Your task to perform on an android device: turn on data saver in the chrome app Image 0: 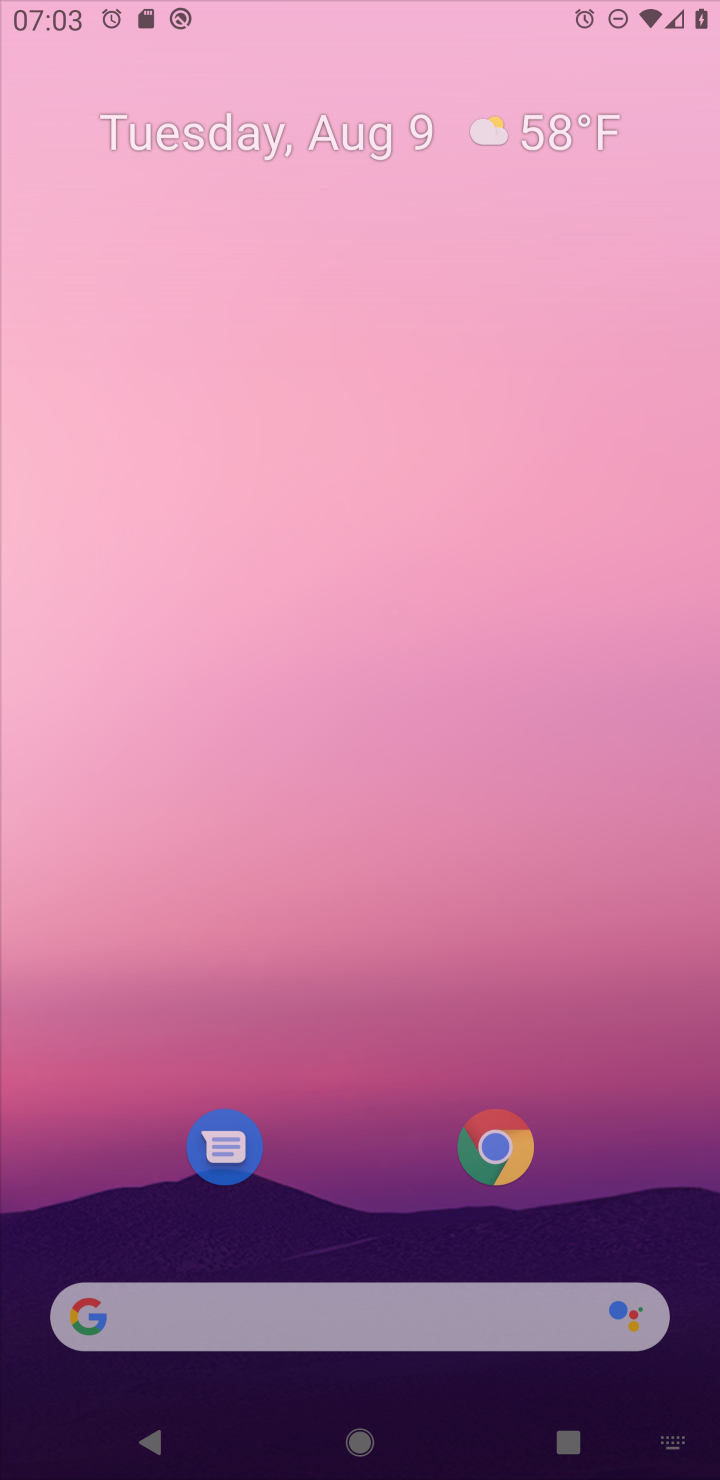
Step 0: press home button
Your task to perform on an android device: turn on data saver in the chrome app Image 1: 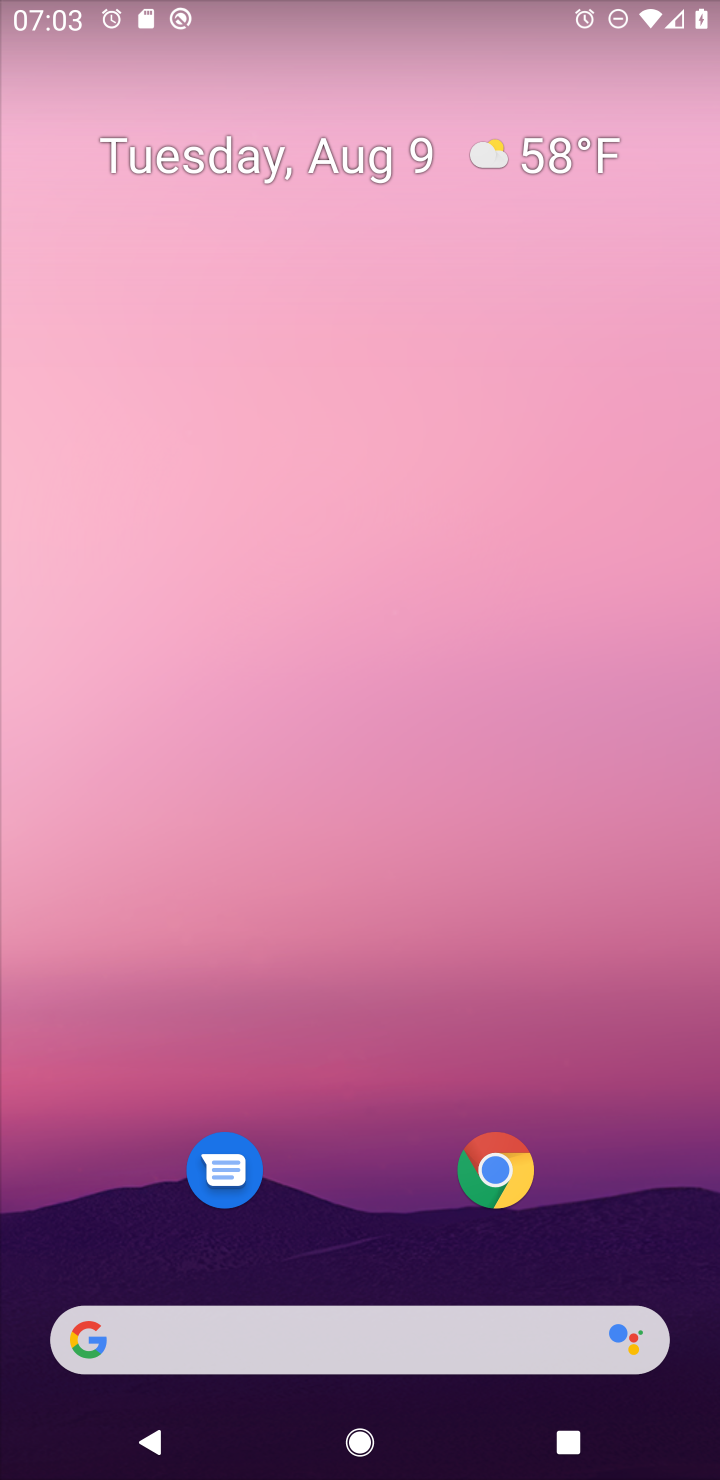
Step 1: click (498, 1195)
Your task to perform on an android device: turn on data saver in the chrome app Image 2: 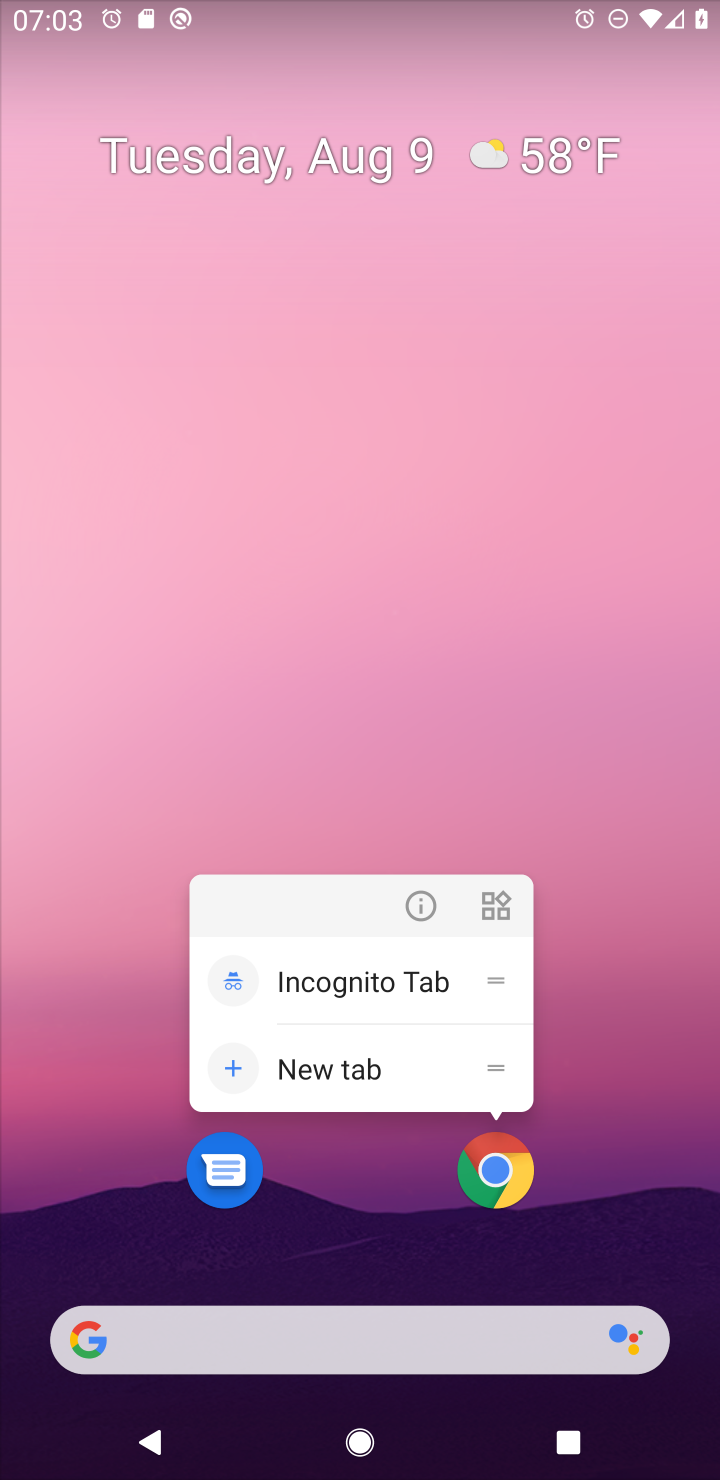
Step 2: click (485, 1172)
Your task to perform on an android device: turn on data saver in the chrome app Image 3: 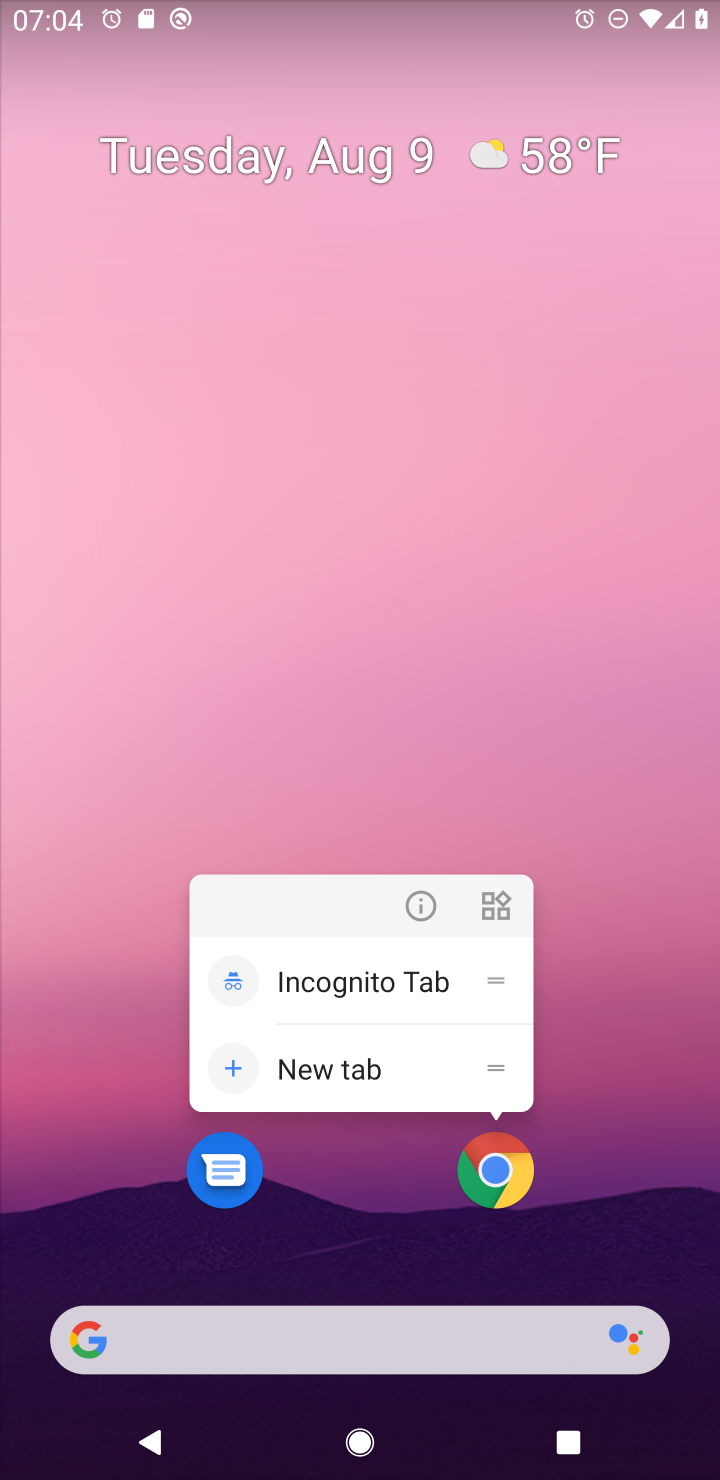
Step 3: click (491, 1173)
Your task to perform on an android device: turn on data saver in the chrome app Image 4: 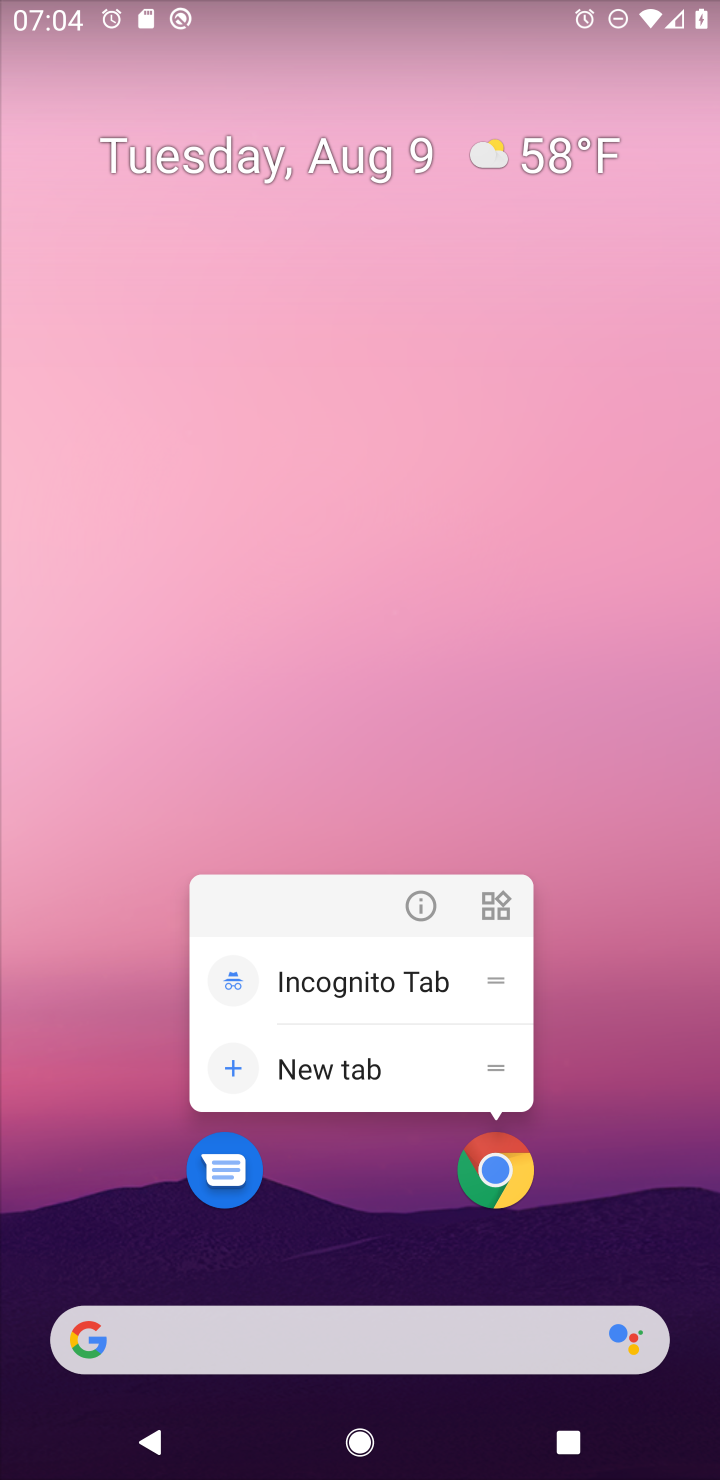
Step 4: click (491, 1173)
Your task to perform on an android device: turn on data saver in the chrome app Image 5: 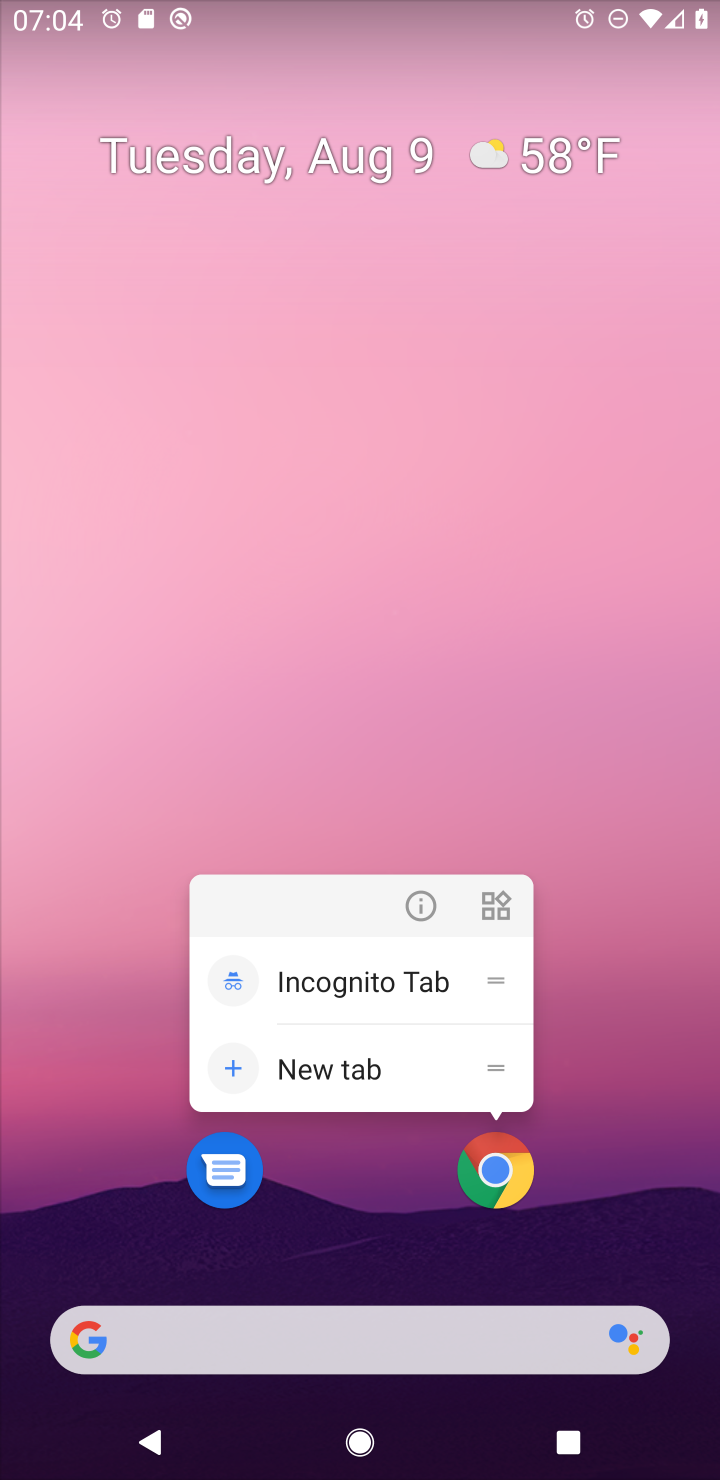
Step 5: click (491, 1184)
Your task to perform on an android device: turn on data saver in the chrome app Image 6: 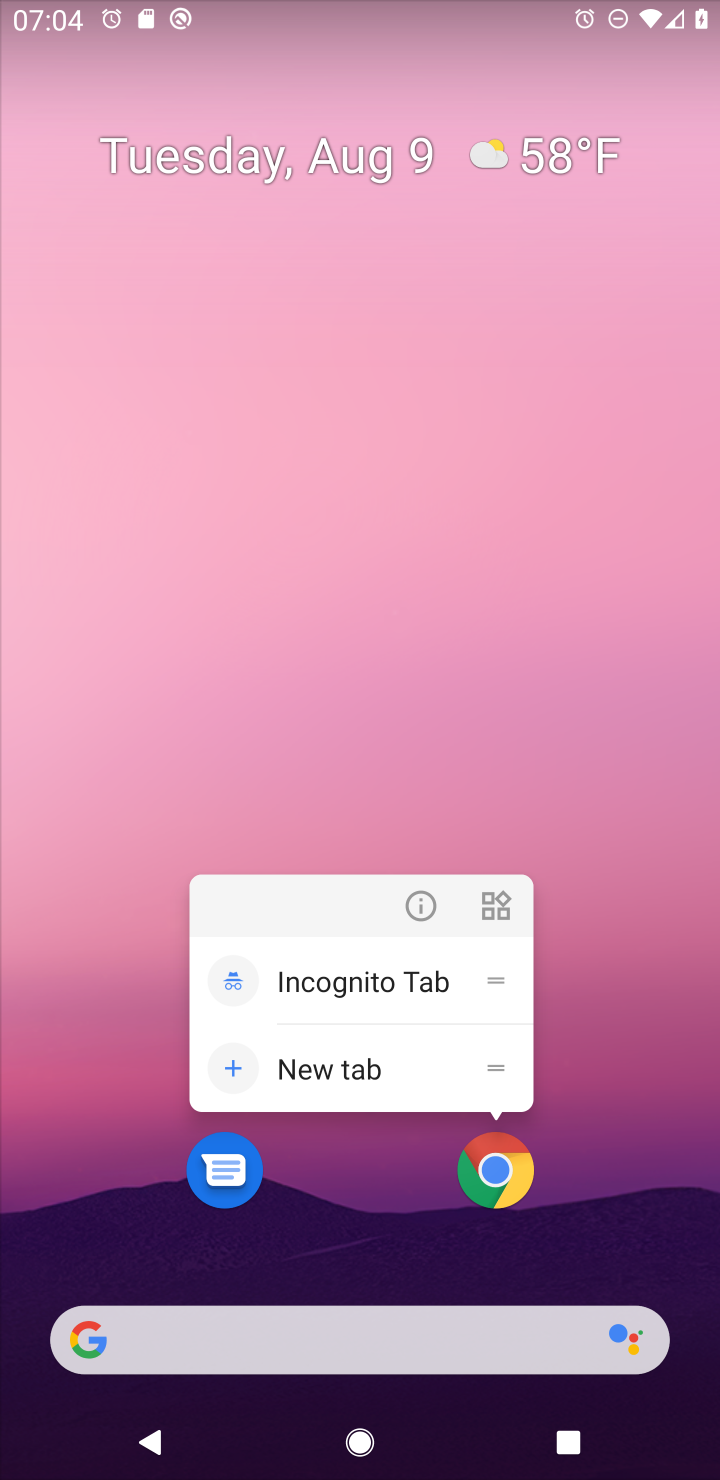
Step 6: click (491, 1184)
Your task to perform on an android device: turn on data saver in the chrome app Image 7: 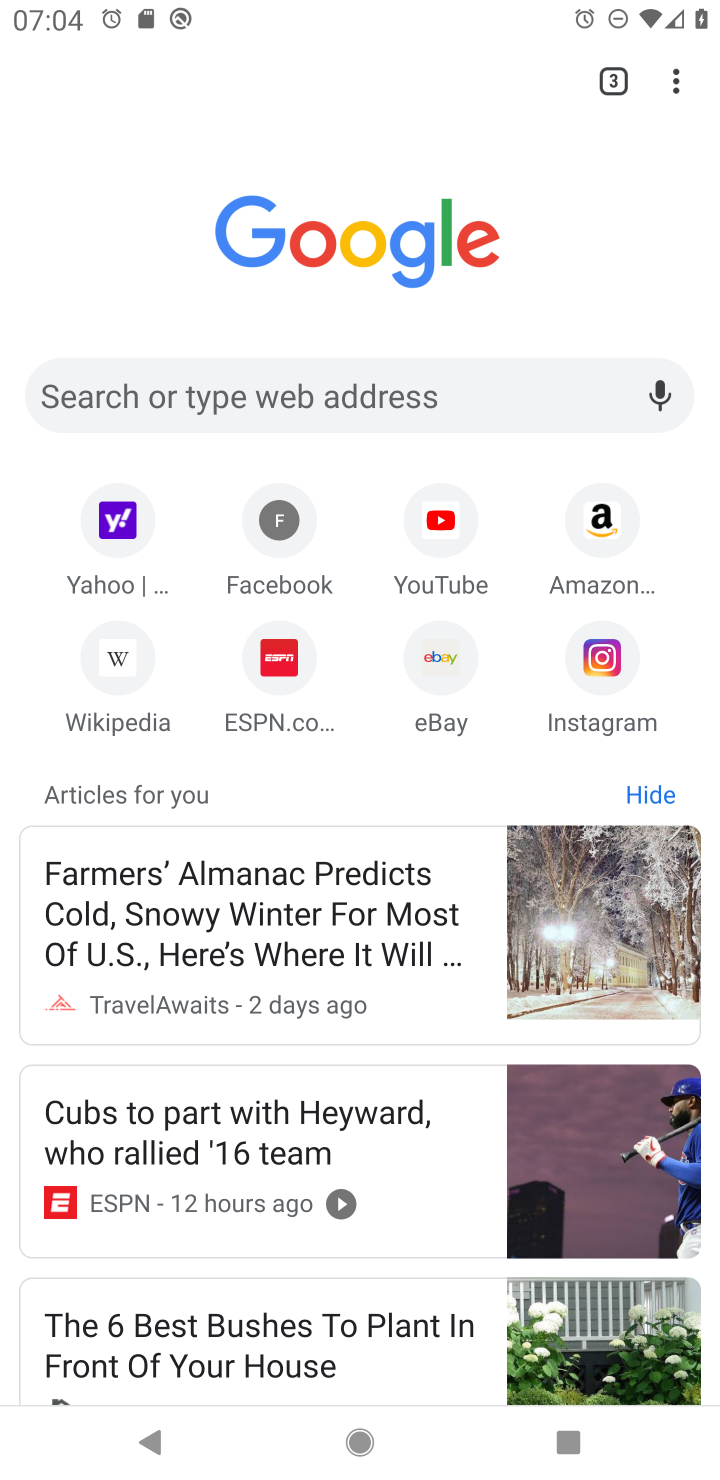
Step 7: drag from (679, 77) to (406, 685)
Your task to perform on an android device: turn on data saver in the chrome app Image 8: 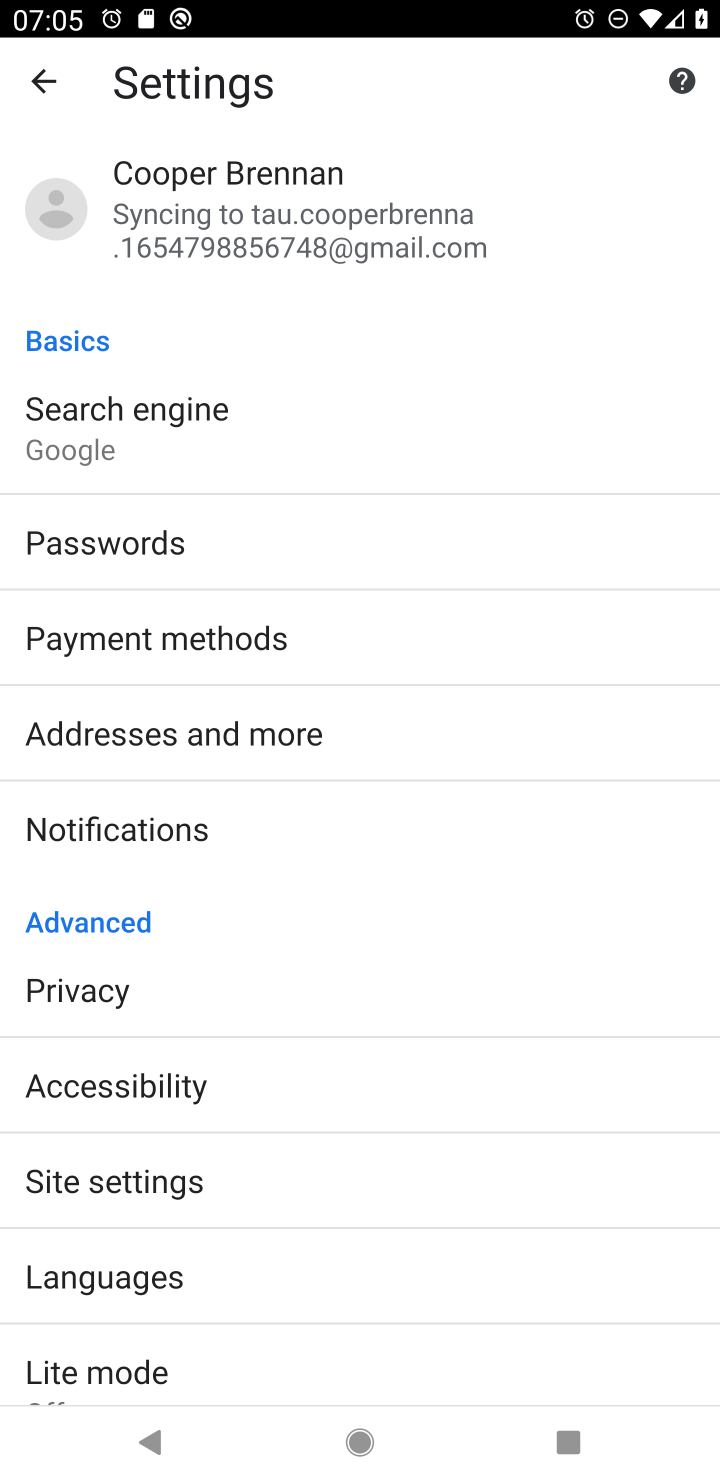
Step 8: click (110, 1373)
Your task to perform on an android device: turn on data saver in the chrome app Image 9: 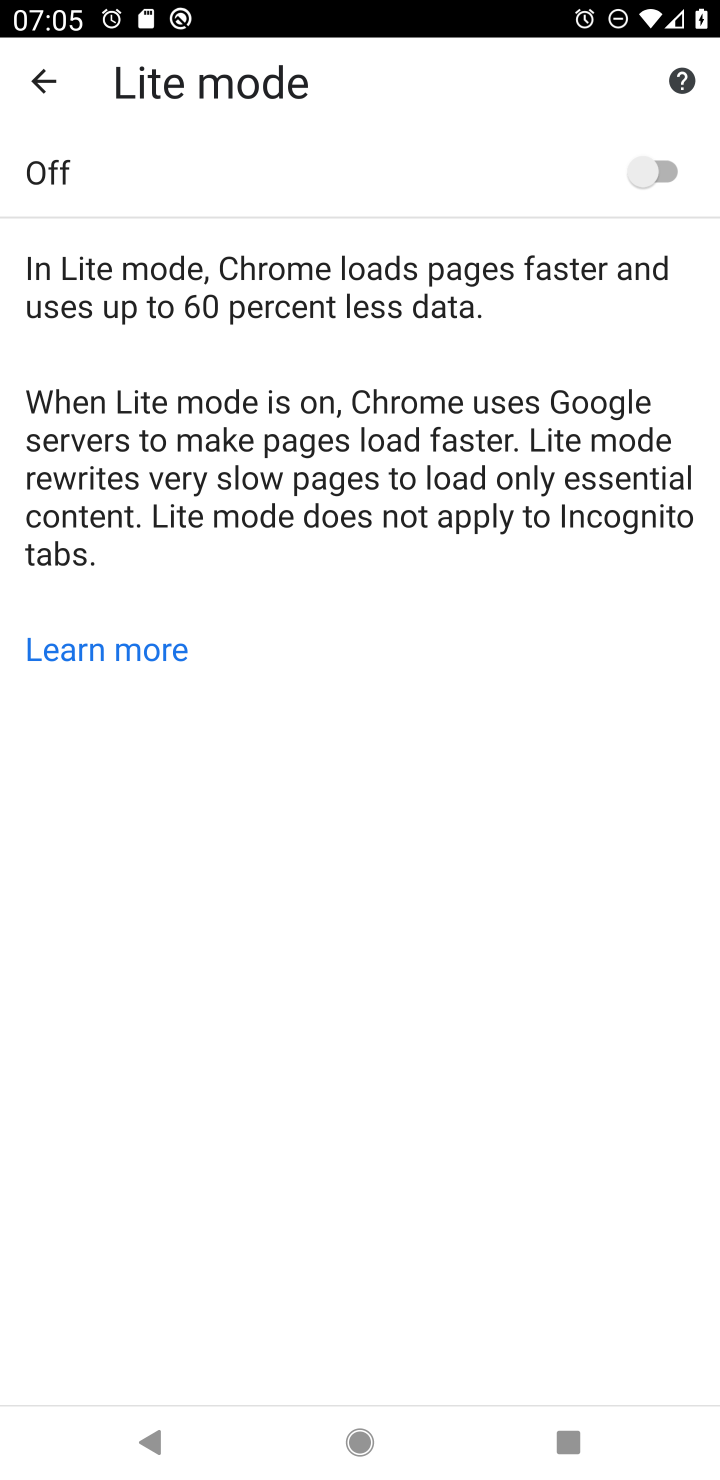
Step 9: click (650, 174)
Your task to perform on an android device: turn on data saver in the chrome app Image 10: 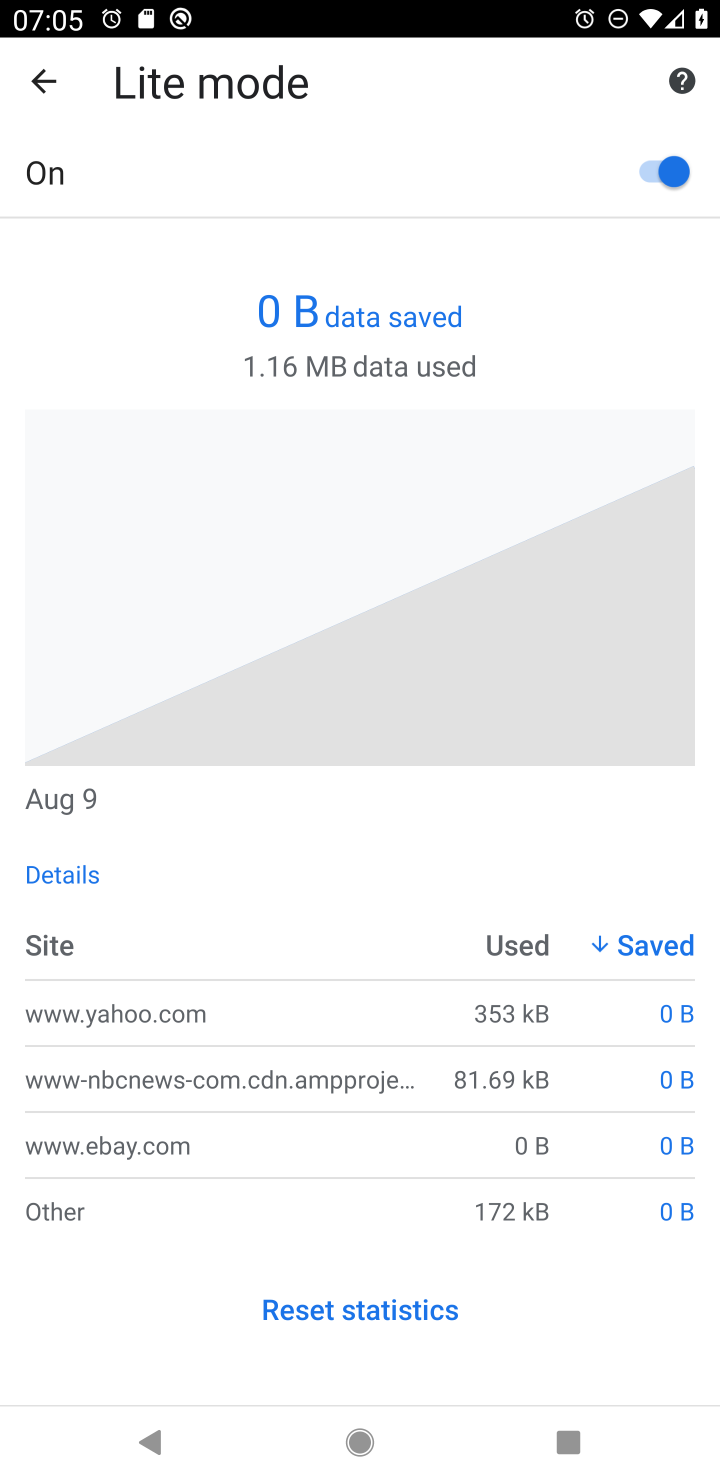
Step 10: task complete